Your task to perform on an android device: Open wifi settings Image 0: 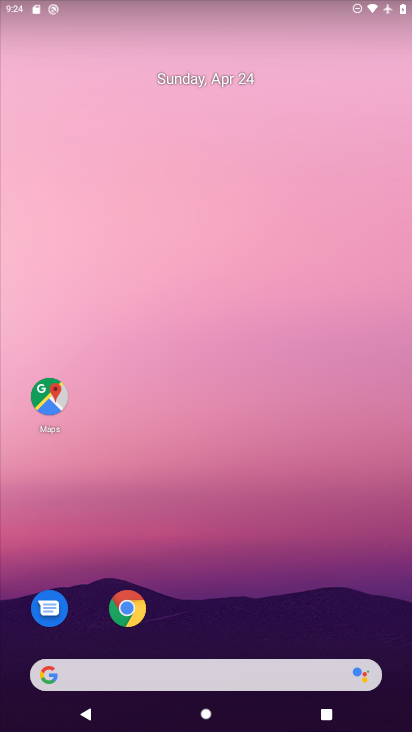
Step 0: drag from (228, 635) to (193, 181)
Your task to perform on an android device: Open wifi settings Image 1: 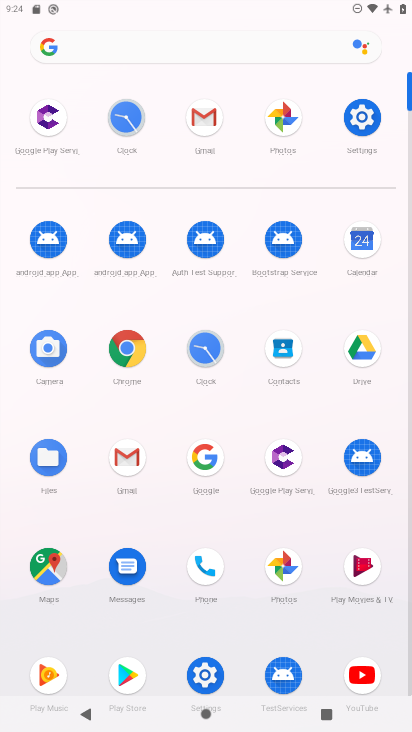
Step 1: click (357, 121)
Your task to perform on an android device: Open wifi settings Image 2: 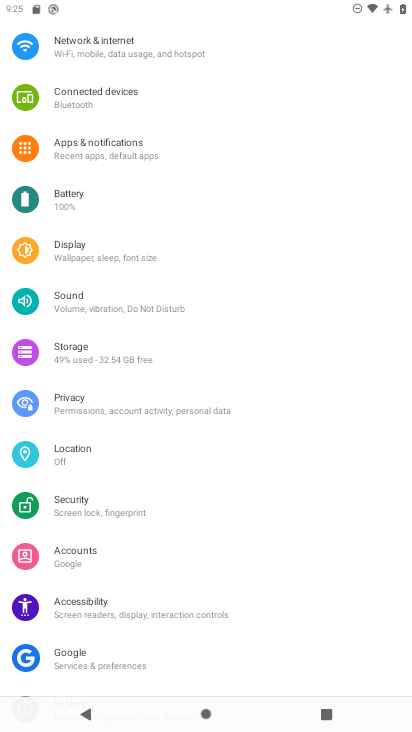
Step 2: drag from (212, 189) to (199, 641)
Your task to perform on an android device: Open wifi settings Image 3: 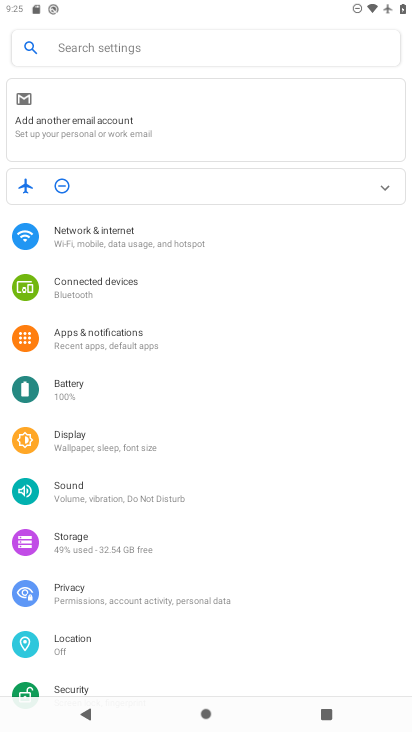
Step 3: click (107, 246)
Your task to perform on an android device: Open wifi settings Image 4: 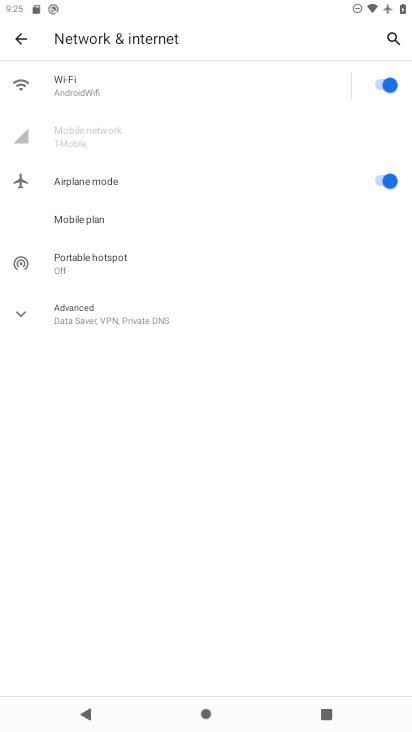
Step 4: click (91, 94)
Your task to perform on an android device: Open wifi settings Image 5: 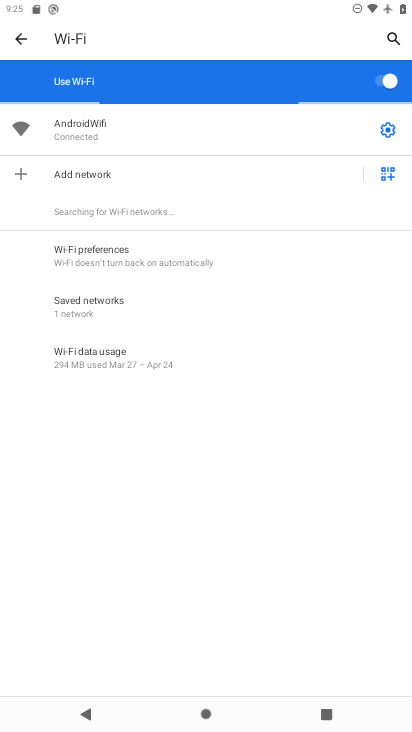
Step 5: task complete